Your task to perform on an android device: What's on my calendar today? Image 0: 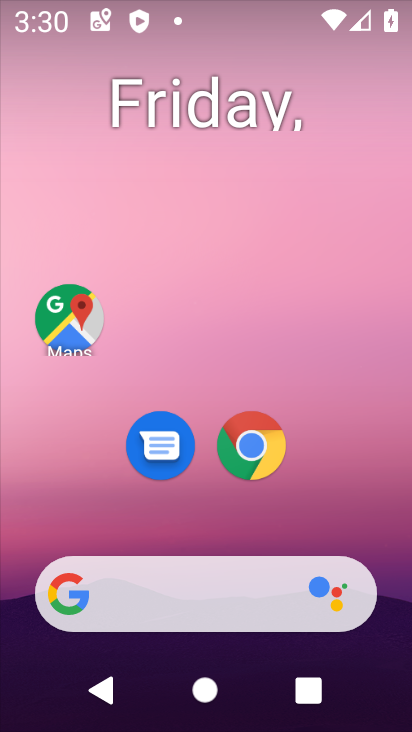
Step 0: drag from (212, 533) to (287, 0)
Your task to perform on an android device: What's on my calendar today? Image 1: 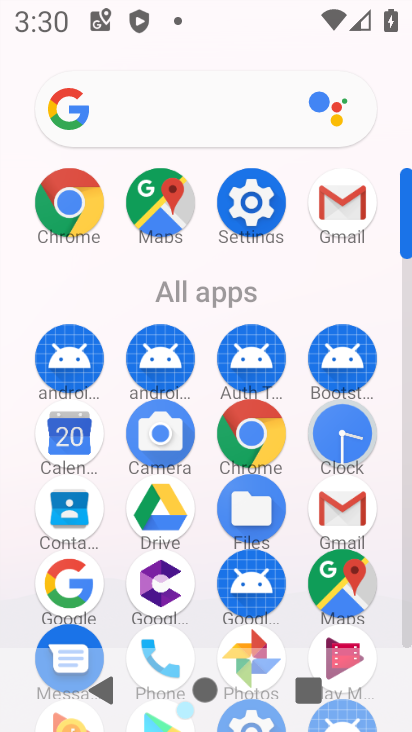
Step 1: click (79, 442)
Your task to perform on an android device: What's on my calendar today? Image 2: 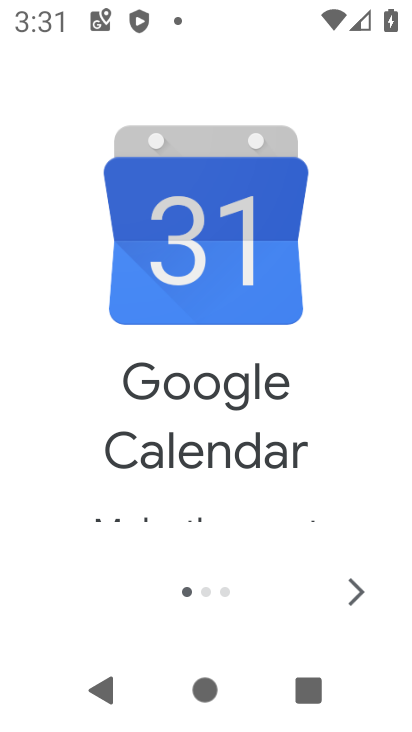
Step 2: click (364, 591)
Your task to perform on an android device: What's on my calendar today? Image 3: 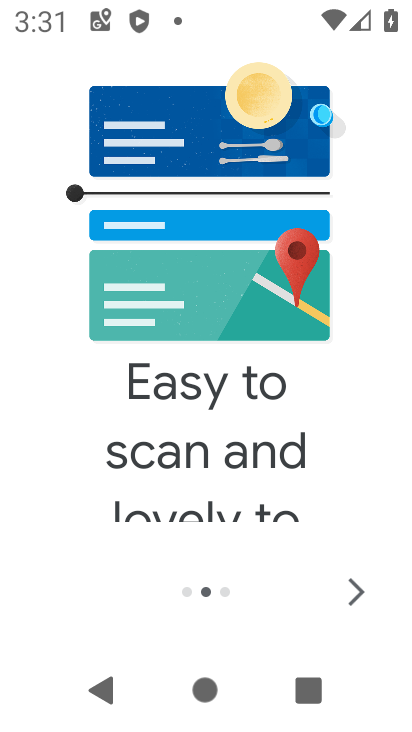
Step 3: click (352, 594)
Your task to perform on an android device: What's on my calendar today? Image 4: 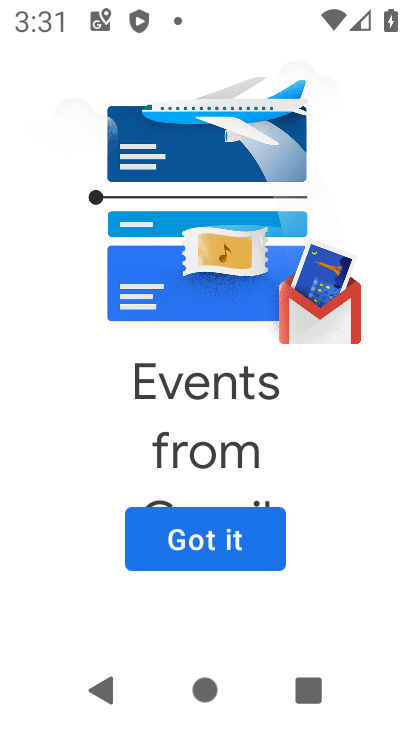
Step 4: click (194, 556)
Your task to perform on an android device: What's on my calendar today? Image 5: 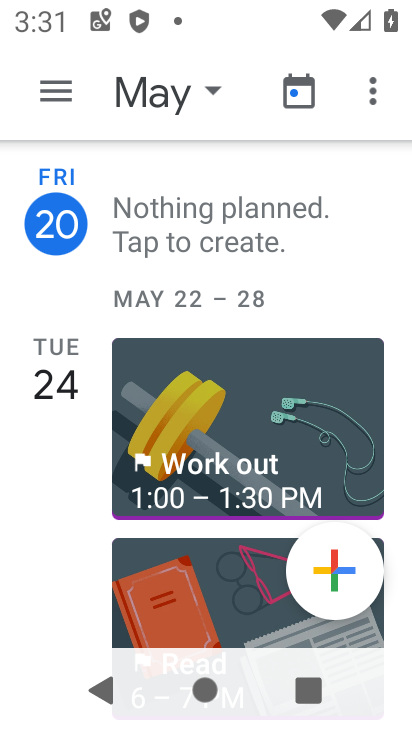
Step 5: click (57, 90)
Your task to perform on an android device: What's on my calendar today? Image 6: 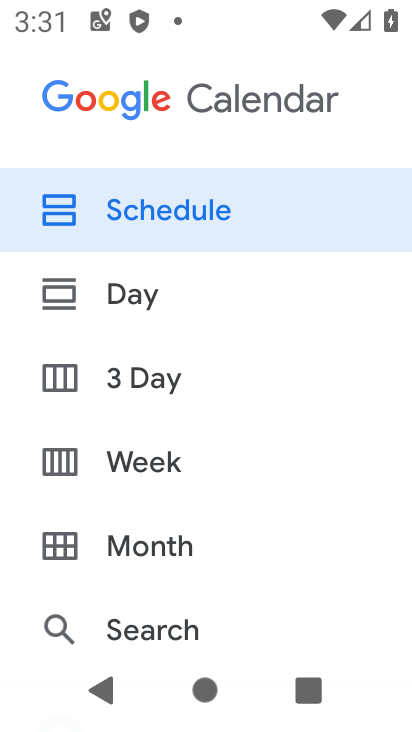
Step 6: click (141, 299)
Your task to perform on an android device: What's on my calendar today? Image 7: 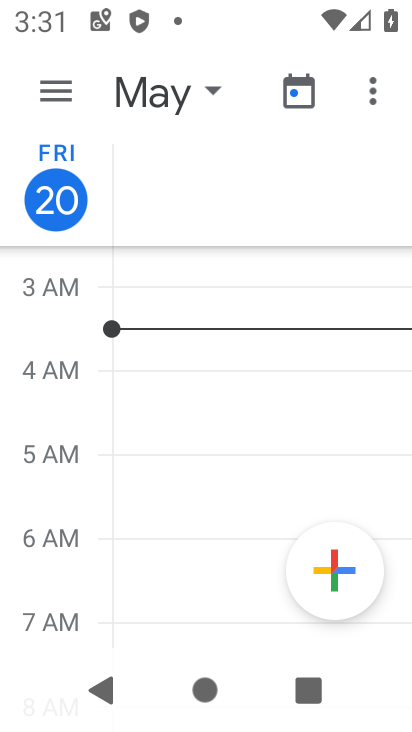
Step 7: task complete